Your task to perform on an android device: set the stopwatch Image 0: 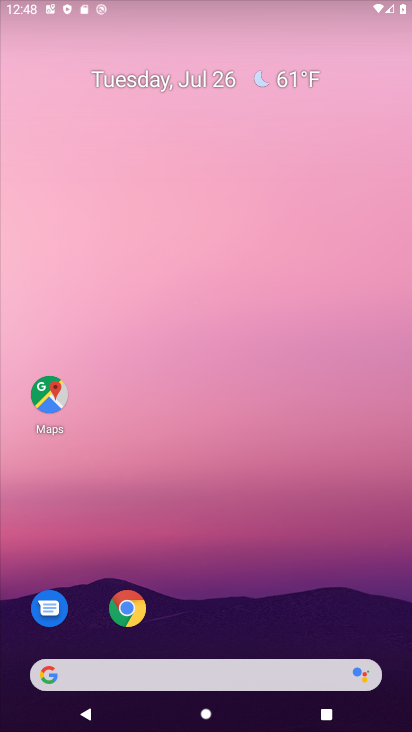
Step 0: press home button
Your task to perform on an android device: set the stopwatch Image 1: 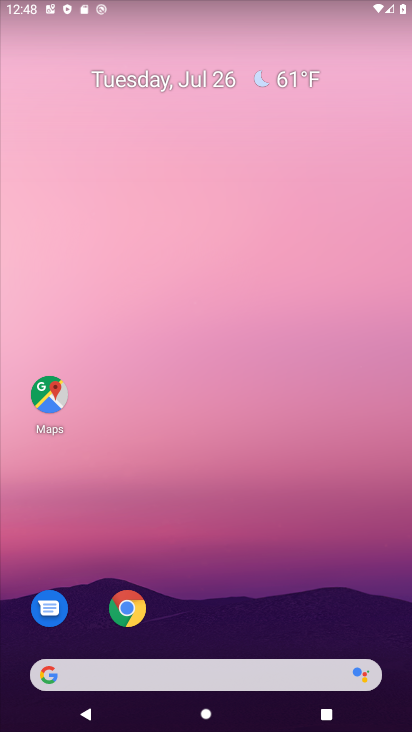
Step 1: drag from (347, 569) to (346, 122)
Your task to perform on an android device: set the stopwatch Image 2: 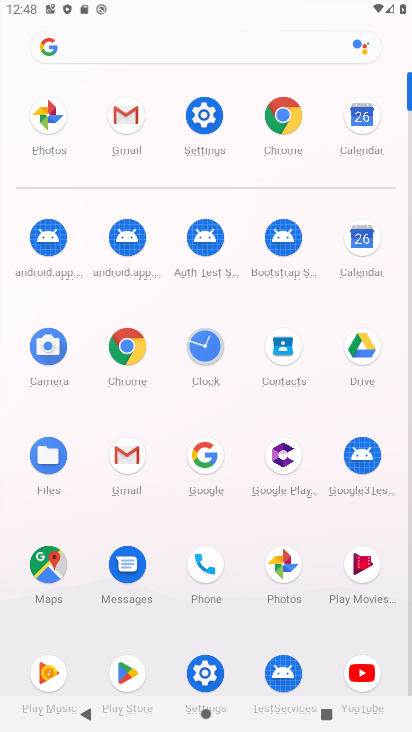
Step 2: click (199, 350)
Your task to perform on an android device: set the stopwatch Image 3: 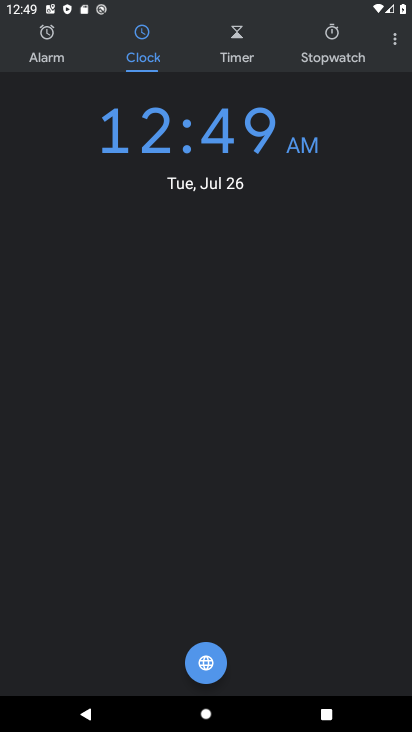
Step 3: click (340, 42)
Your task to perform on an android device: set the stopwatch Image 4: 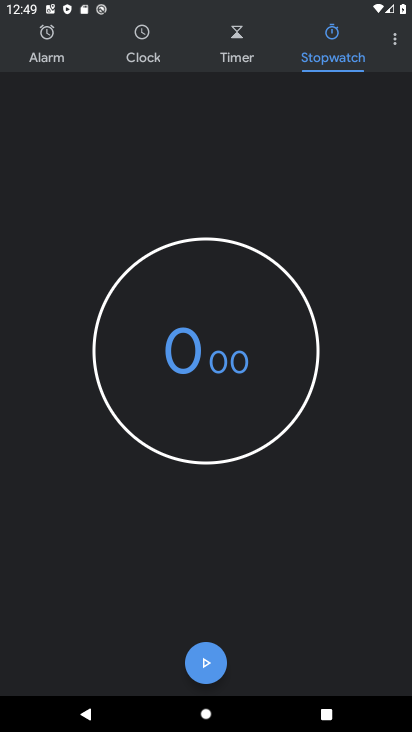
Step 4: click (204, 662)
Your task to perform on an android device: set the stopwatch Image 5: 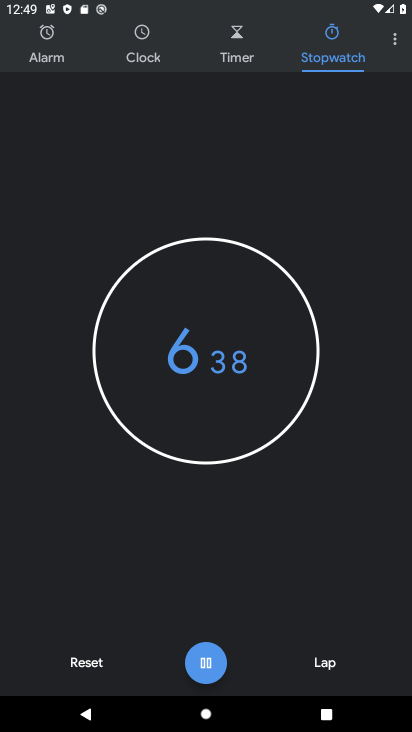
Step 5: task complete